Your task to perform on an android device: Show me popular games on the Play Store Image 0: 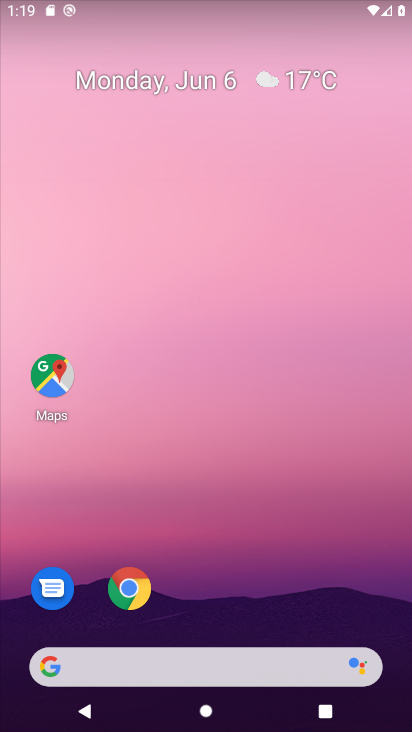
Step 0: drag from (241, 709) to (227, 93)
Your task to perform on an android device: Show me popular games on the Play Store Image 1: 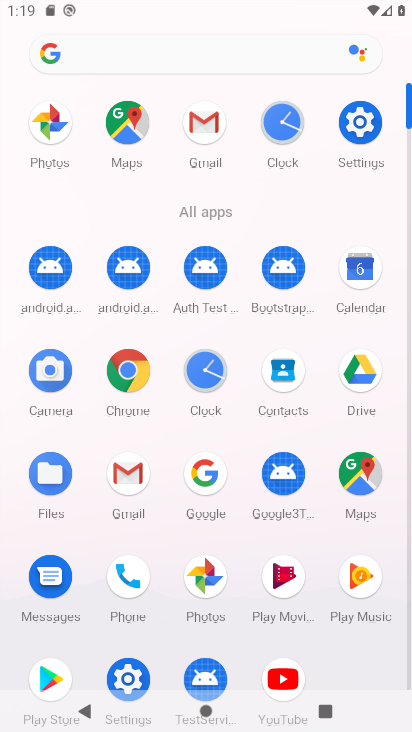
Step 1: click (52, 673)
Your task to perform on an android device: Show me popular games on the Play Store Image 2: 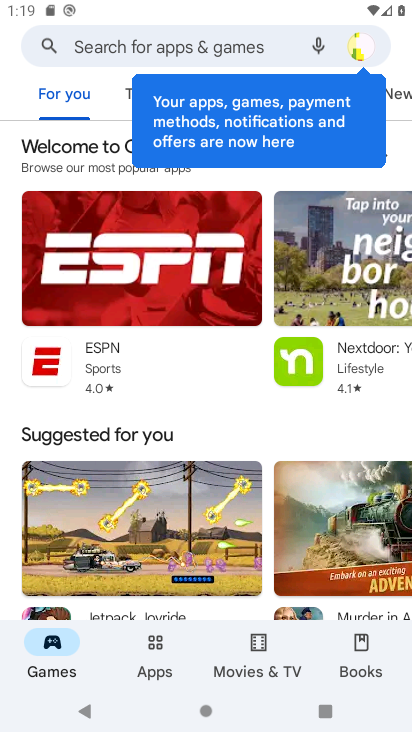
Step 2: click (104, 99)
Your task to perform on an android device: Show me popular games on the Play Store Image 3: 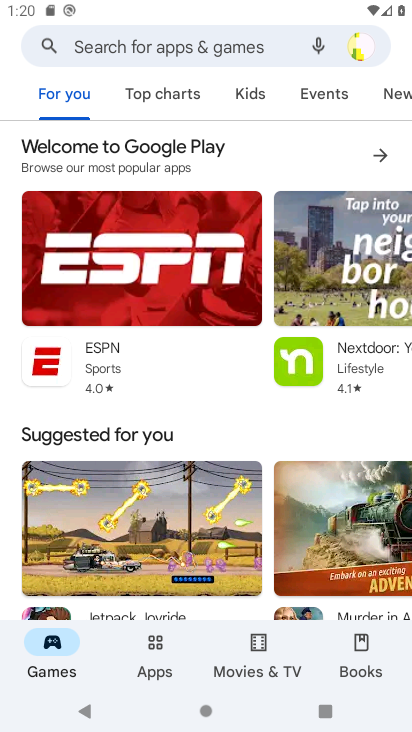
Step 3: task complete